Your task to perform on an android device: Go to Yahoo.com Image 0: 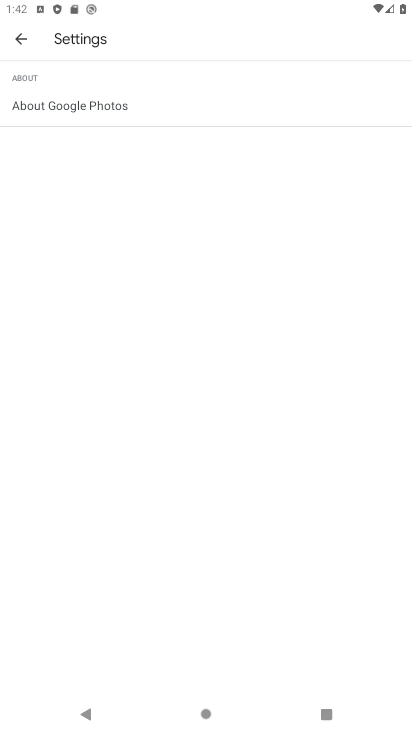
Step 0: press home button
Your task to perform on an android device: Go to Yahoo.com Image 1: 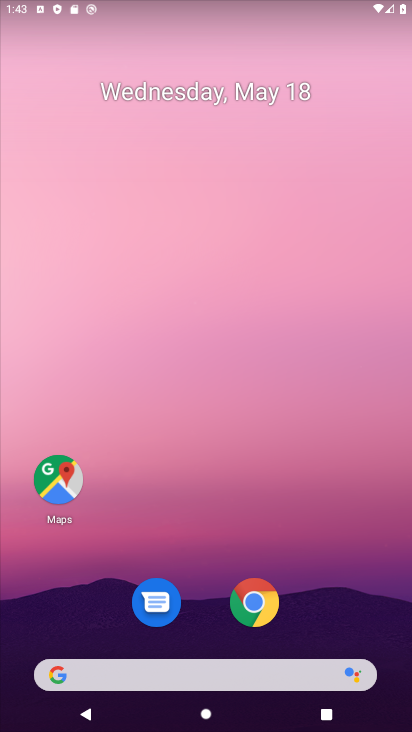
Step 1: click (156, 680)
Your task to perform on an android device: Go to Yahoo.com Image 2: 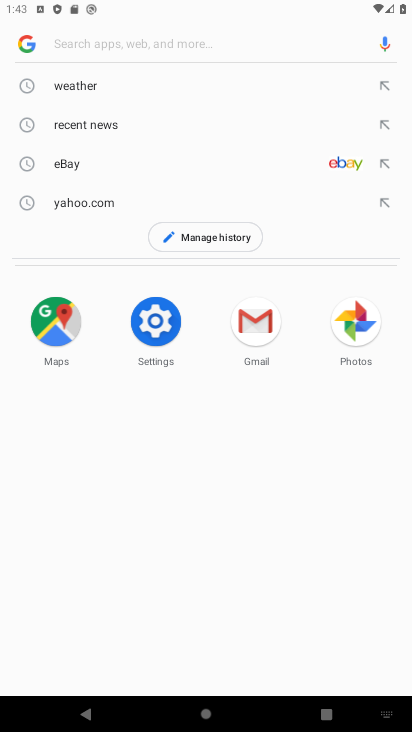
Step 2: type "yahoo.com"
Your task to perform on an android device: Go to Yahoo.com Image 3: 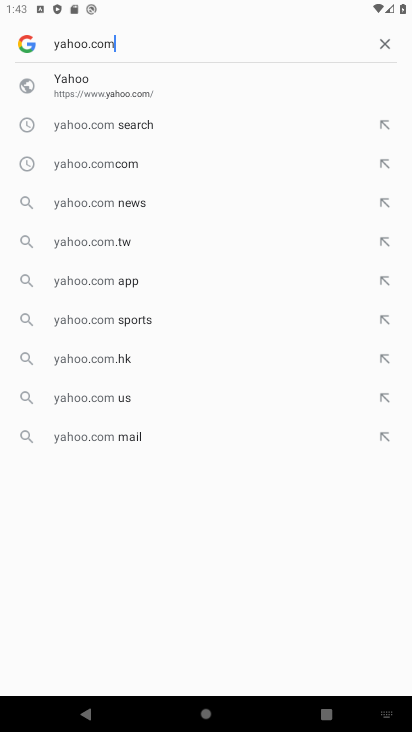
Step 3: click (126, 87)
Your task to perform on an android device: Go to Yahoo.com Image 4: 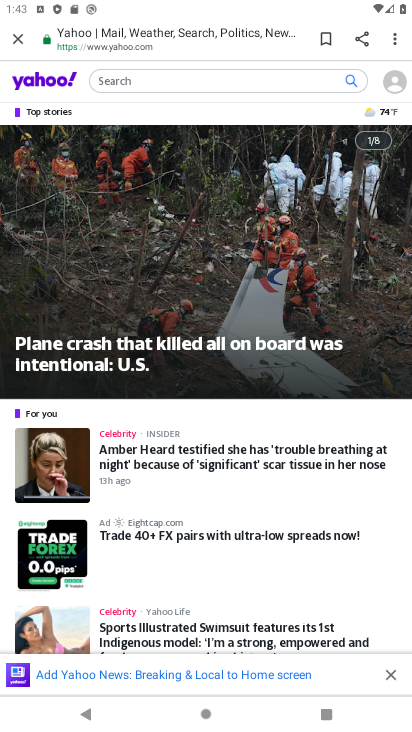
Step 4: task complete